Your task to perform on an android device: Open Google Chrome Image 0: 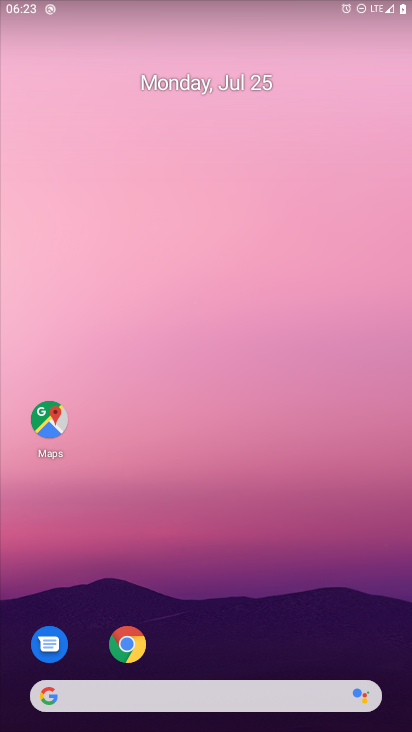
Step 0: drag from (237, 648) to (185, 155)
Your task to perform on an android device: Open Google Chrome Image 1: 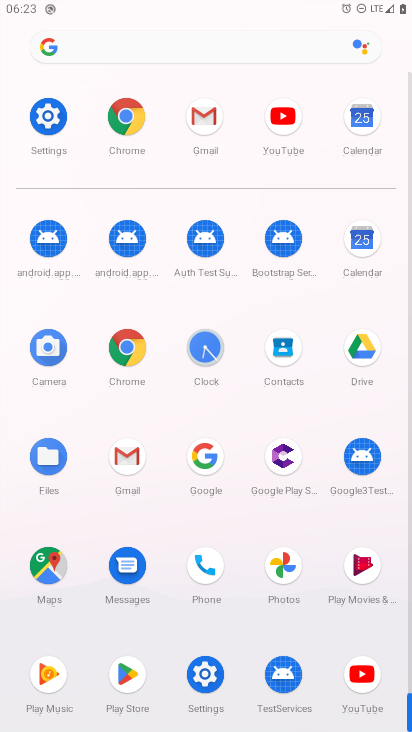
Step 1: click (132, 116)
Your task to perform on an android device: Open Google Chrome Image 2: 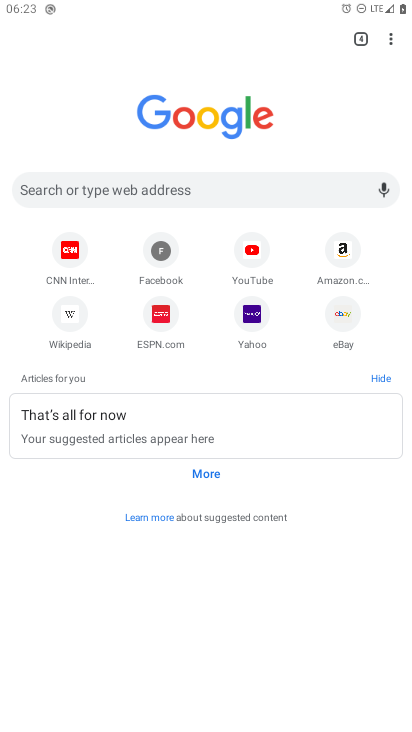
Step 2: task complete